Your task to perform on an android device: Open my contact list Image 0: 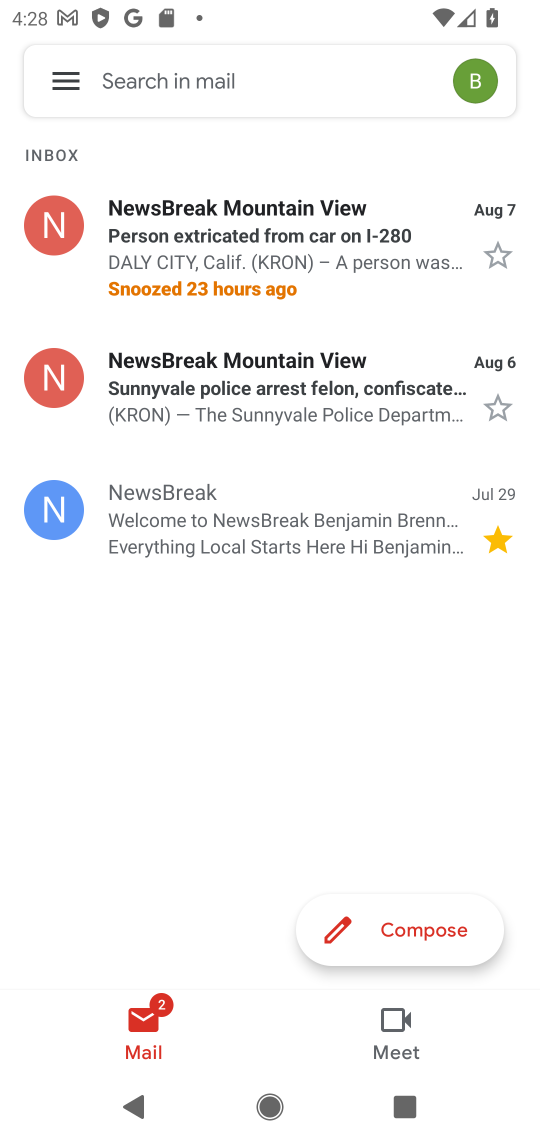
Step 0: press home button
Your task to perform on an android device: Open my contact list Image 1: 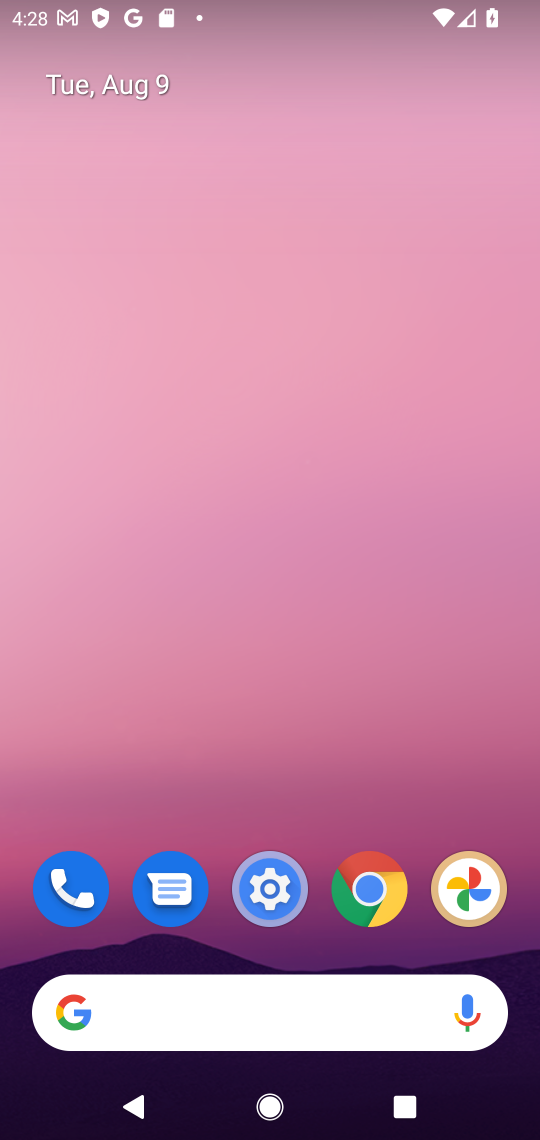
Step 1: drag from (306, 776) to (351, 0)
Your task to perform on an android device: Open my contact list Image 2: 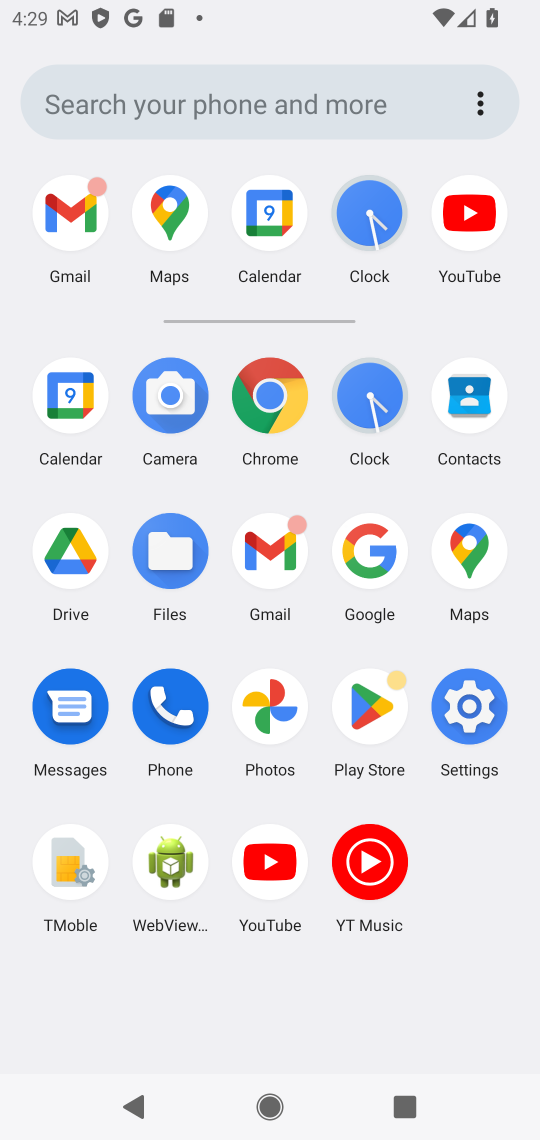
Step 2: click (469, 393)
Your task to perform on an android device: Open my contact list Image 3: 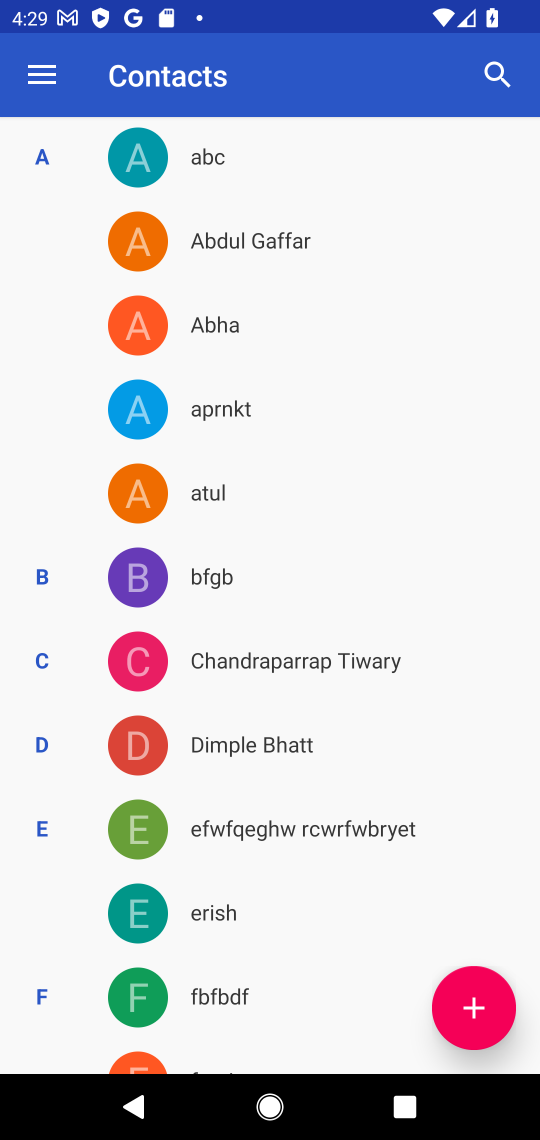
Step 3: task complete